Your task to perform on an android device: change text size in settings app Image 0: 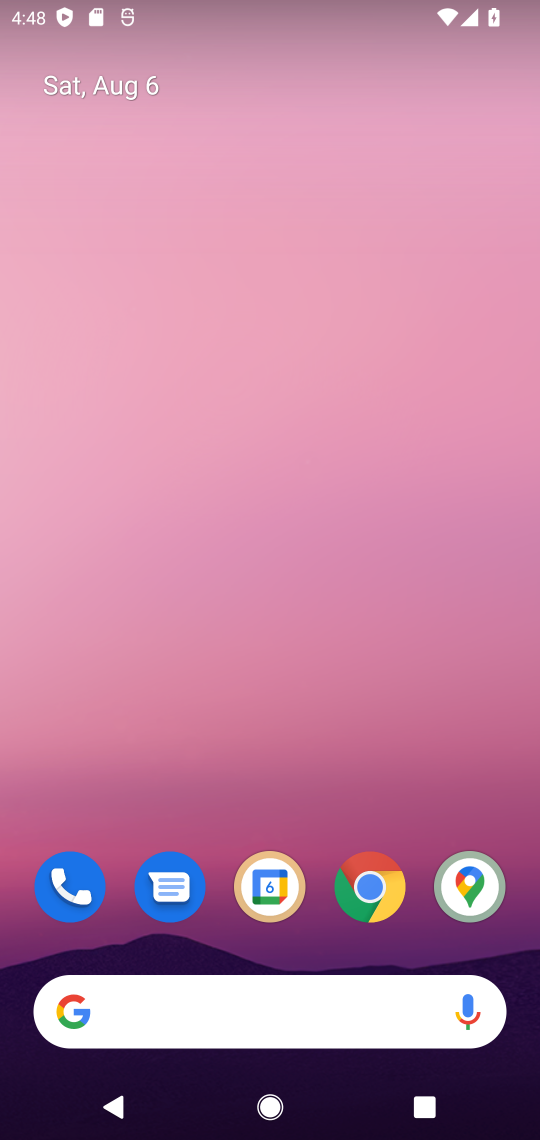
Step 0: drag from (214, 996) to (149, 157)
Your task to perform on an android device: change text size in settings app Image 1: 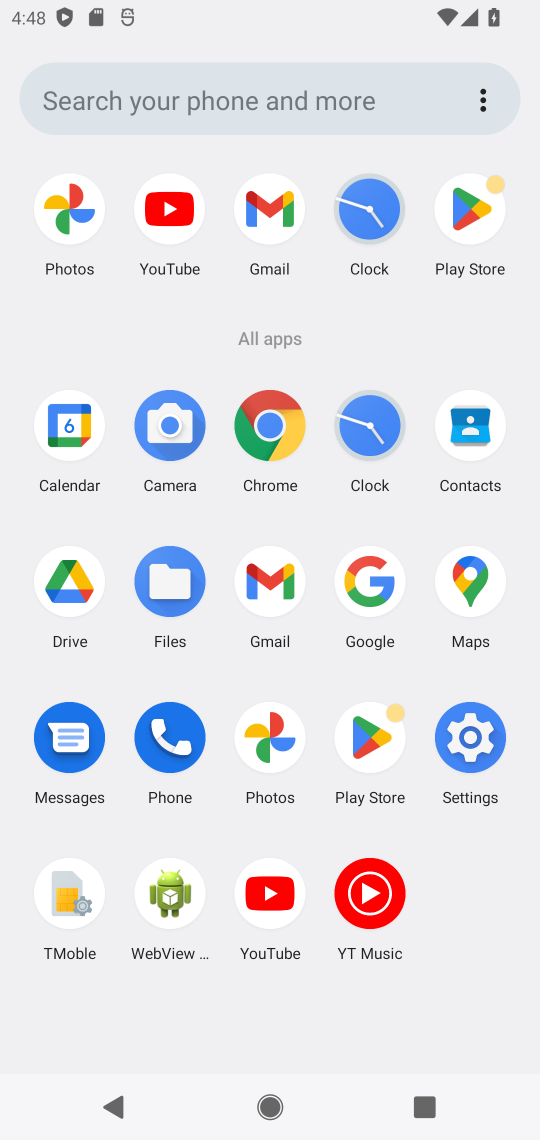
Step 1: click (448, 776)
Your task to perform on an android device: change text size in settings app Image 2: 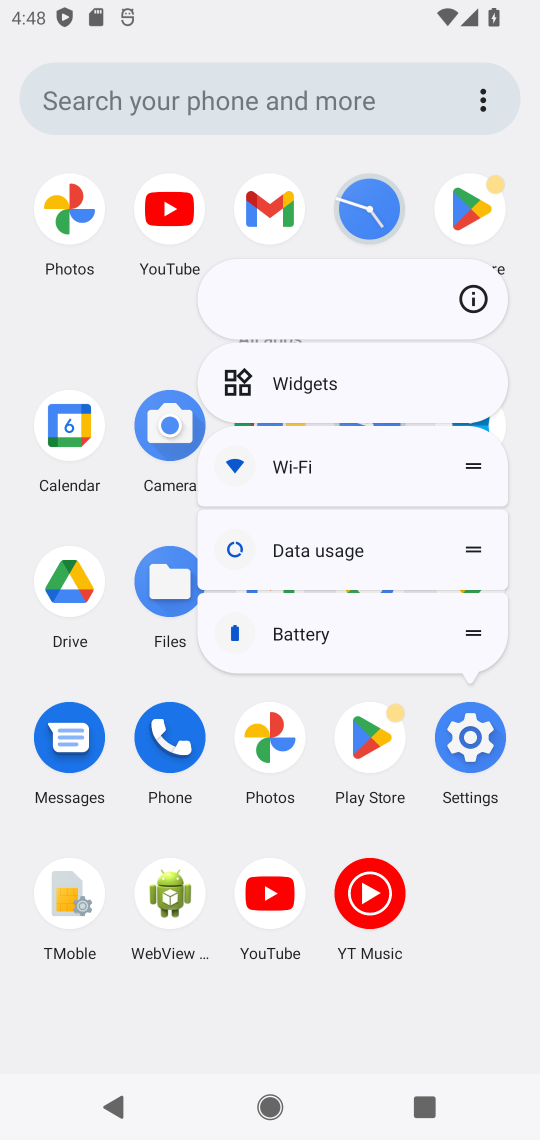
Step 2: click (448, 776)
Your task to perform on an android device: change text size in settings app Image 3: 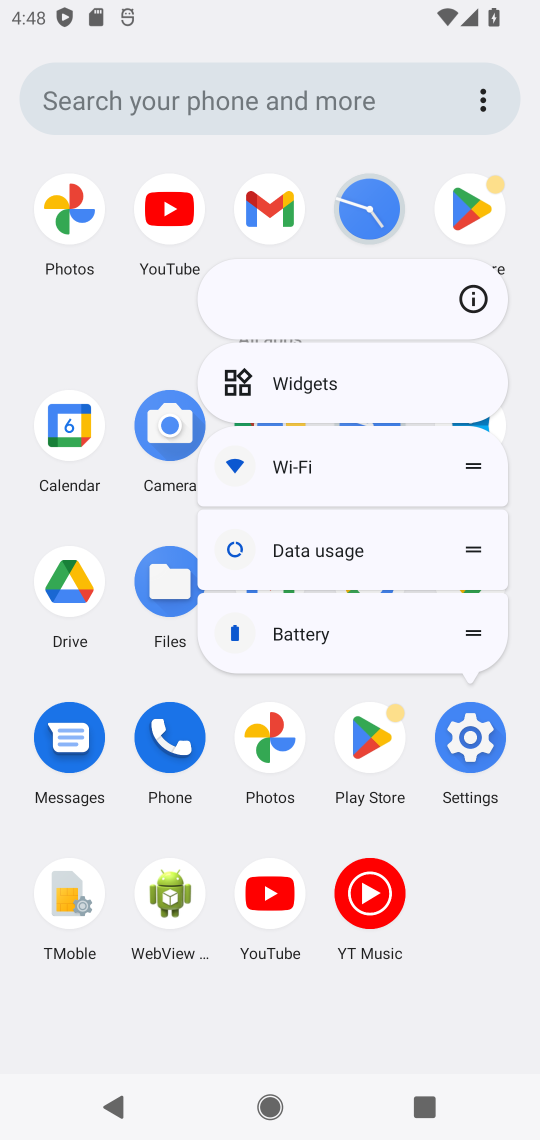
Step 3: click (469, 751)
Your task to perform on an android device: change text size in settings app Image 4: 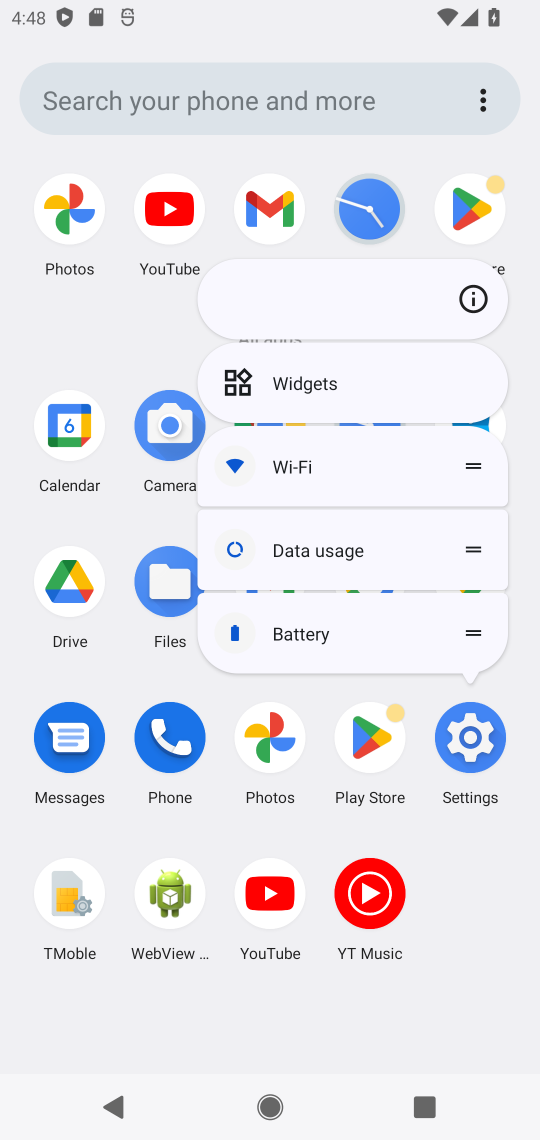
Step 4: click (469, 751)
Your task to perform on an android device: change text size in settings app Image 5: 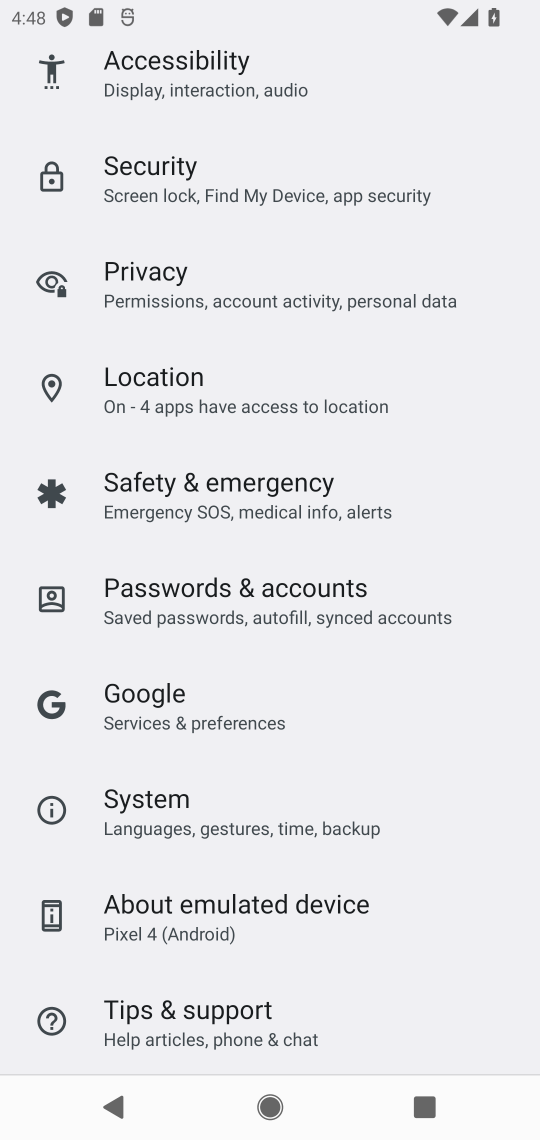
Step 5: drag from (292, 183) to (259, 925)
Your task to perform on an android device: change text size in settings app Image 6: 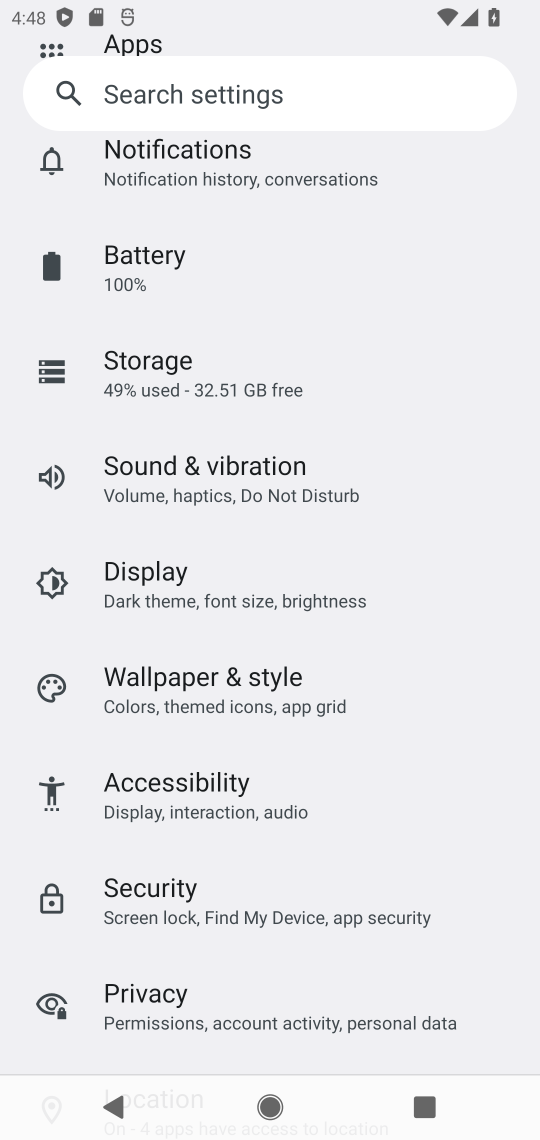
Step 6: click (187, 572)
Your task to perform on an android device: change text size in settings app Image 7: 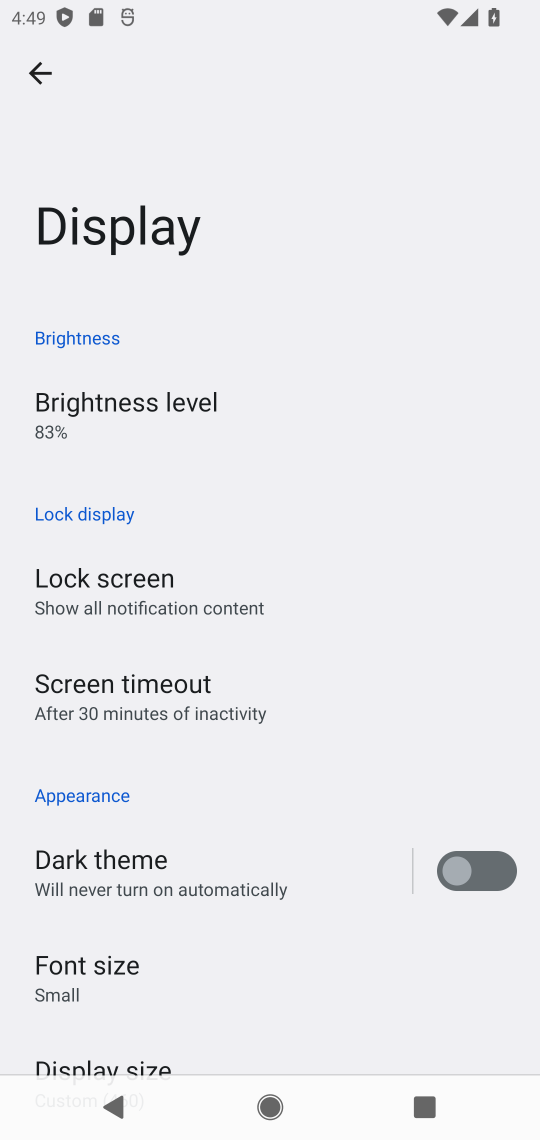
Step 7: drag from (216, 758) to (98, 26)
Your task to perform on an android device: change text size in settings app Image 8: 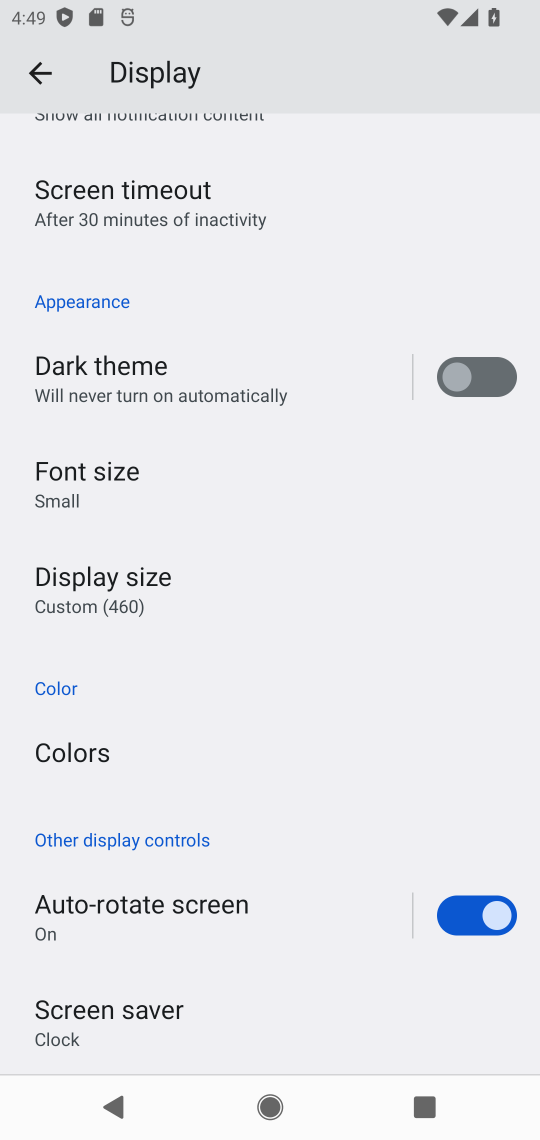
Step 8: click (118, 457)
Your task to perform on an android device: change text size in settings app Image 9: 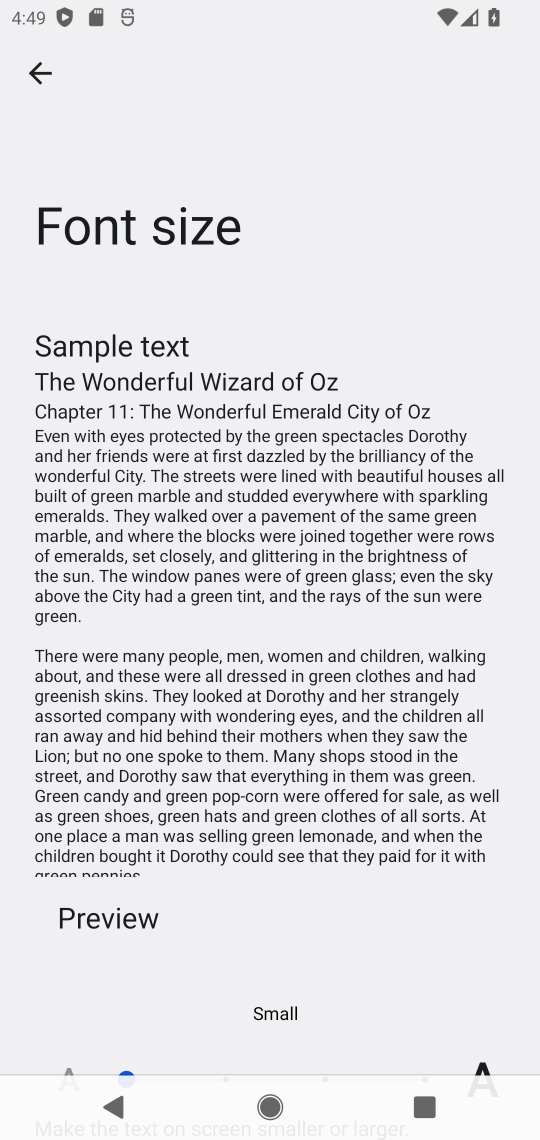
Step 9: drag from (293, 1000) to (246, 412)
Your task to perform on an android device: change text size in settings app Image 10: 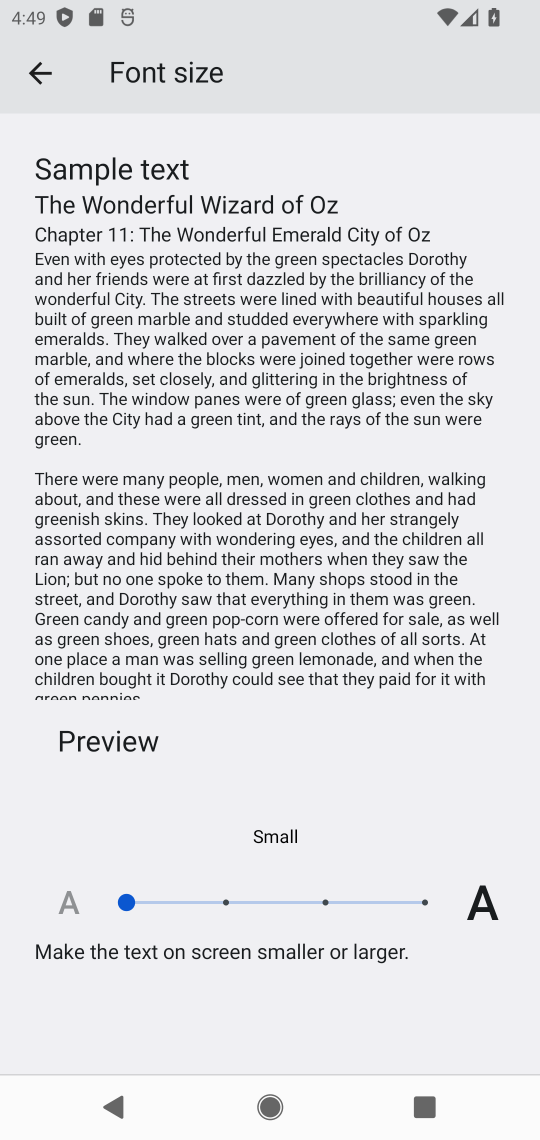
Step 10: click (230, 893)
Your task to perform on an android device: change text size in settings app Image 11: 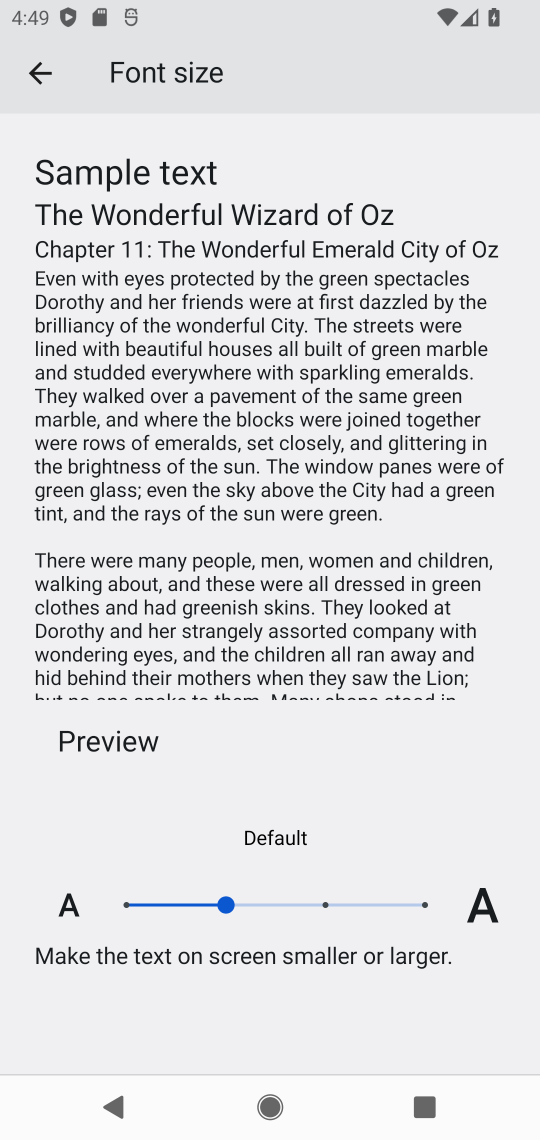
Step 11: task complete